Your task to perform on an android device: find snoozed emails in the gmail app Image 0: 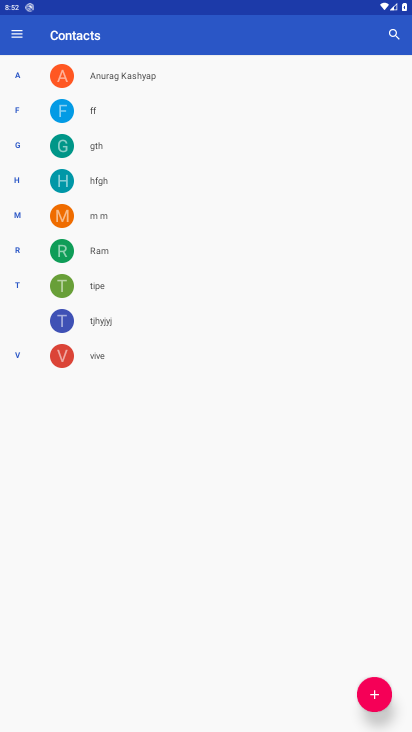
Step 0: press home button
Your task to perform on an android device: find snoozed emails in the gmail app Image 1: 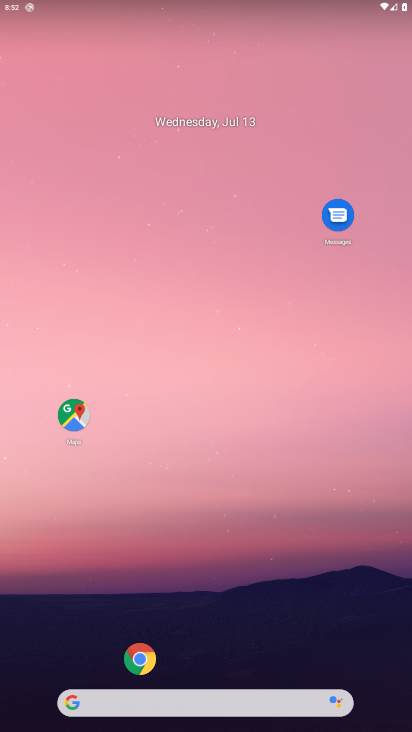
Step 1: drag from (120, 345) to (169, 169)
Your task to perform on an android device: find snoozed emails in the gmail app Image 2: 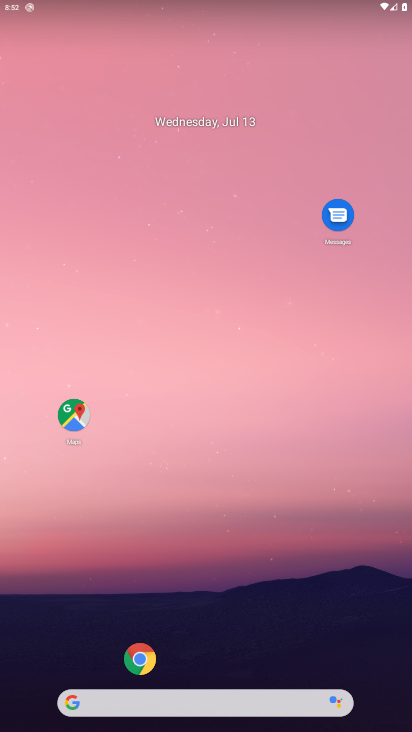
Step 2: drag from (58, 658) to (227, 1)
Your task to perform on an android device: find snoozed emails in the gmail app Image 3: 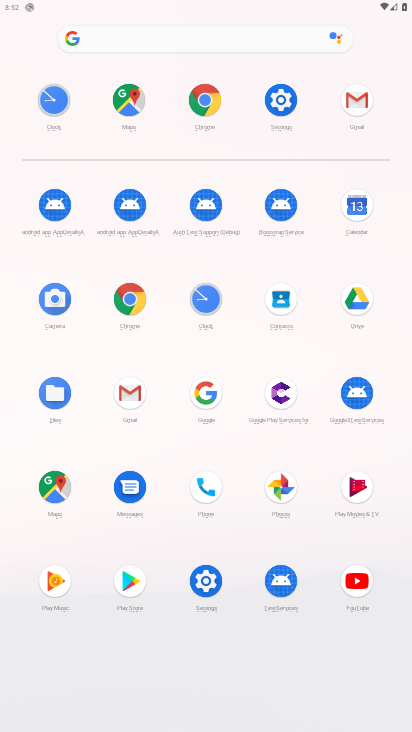
Step 3: click (128, 401)
Your task to perform on an android device: find snoozed emails in the gmail app Image 4: 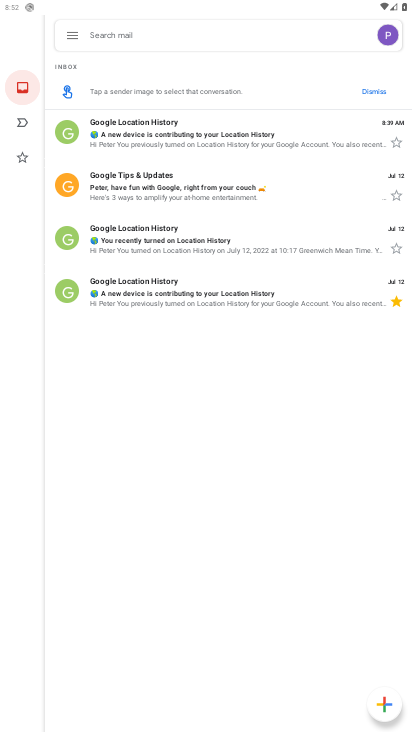
Step 4: click (70, 35)
Your task to perform on an android device: find snoozed emails in the gmail app Image 5: 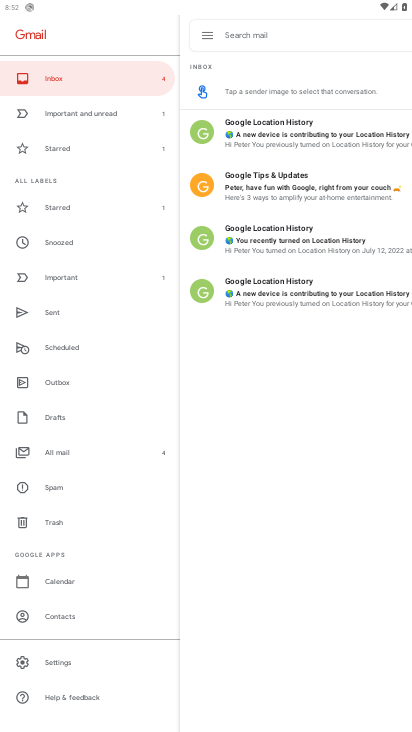
Step 5: click (41, 242)
Your task to perform on an android device: find snoozed emails in the gmail app Image 6: 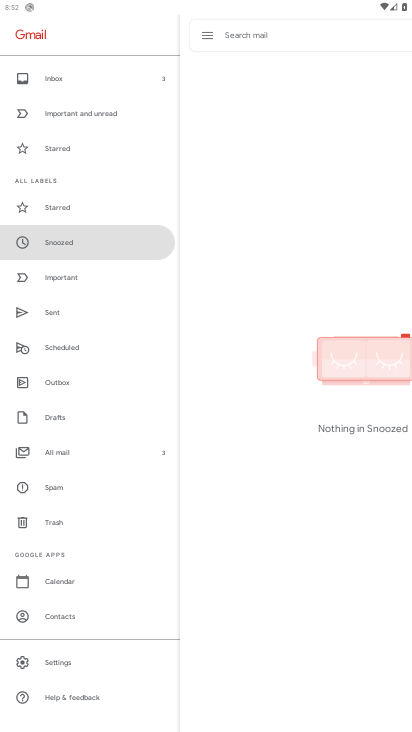
Step 6: task complete